Your task to perform on an android device: toggle location history Image 0: 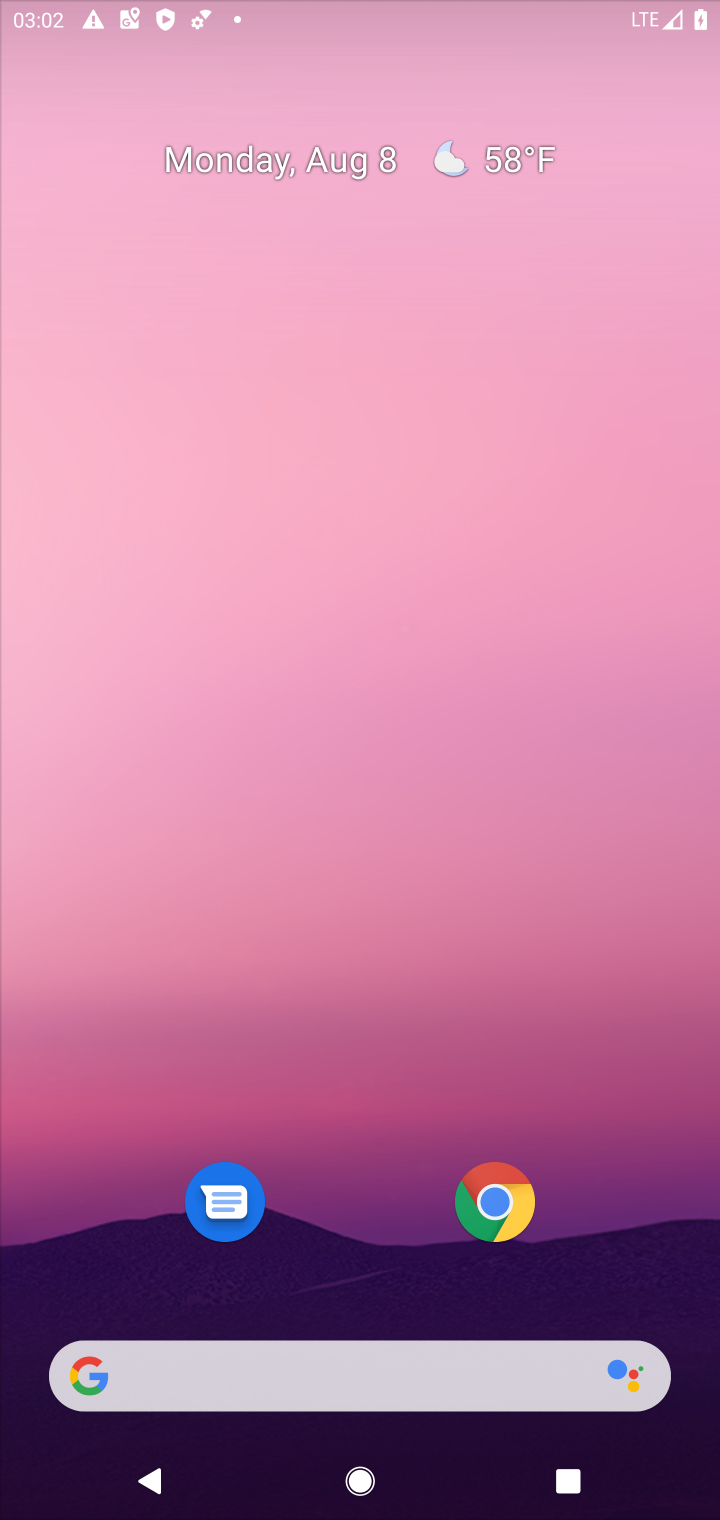
Step 0: press home button
Your task to perform on an android device: toggle location history Image 1: 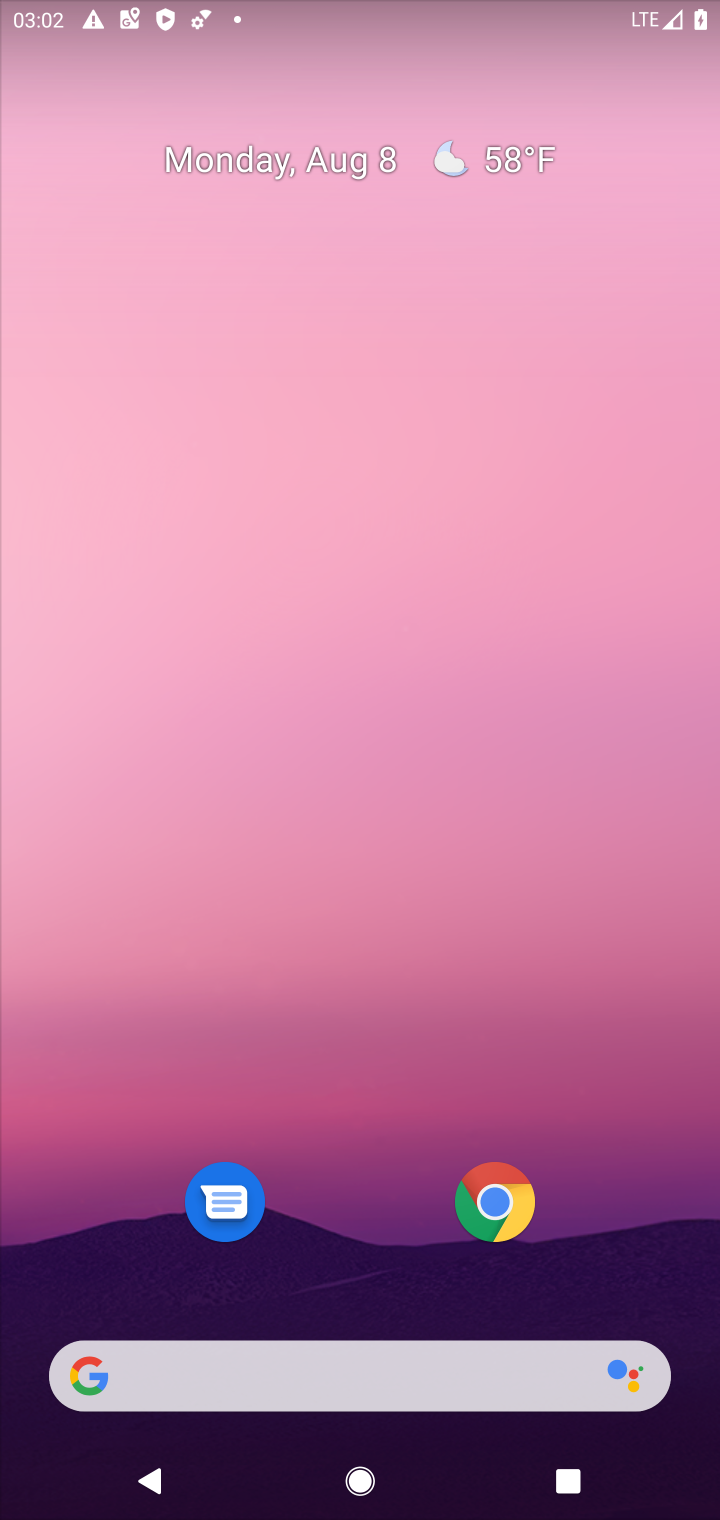
Step 1: drag from (347, 533) to (382, 79)
Your task to perform on an android device: toggle location history Image 2: 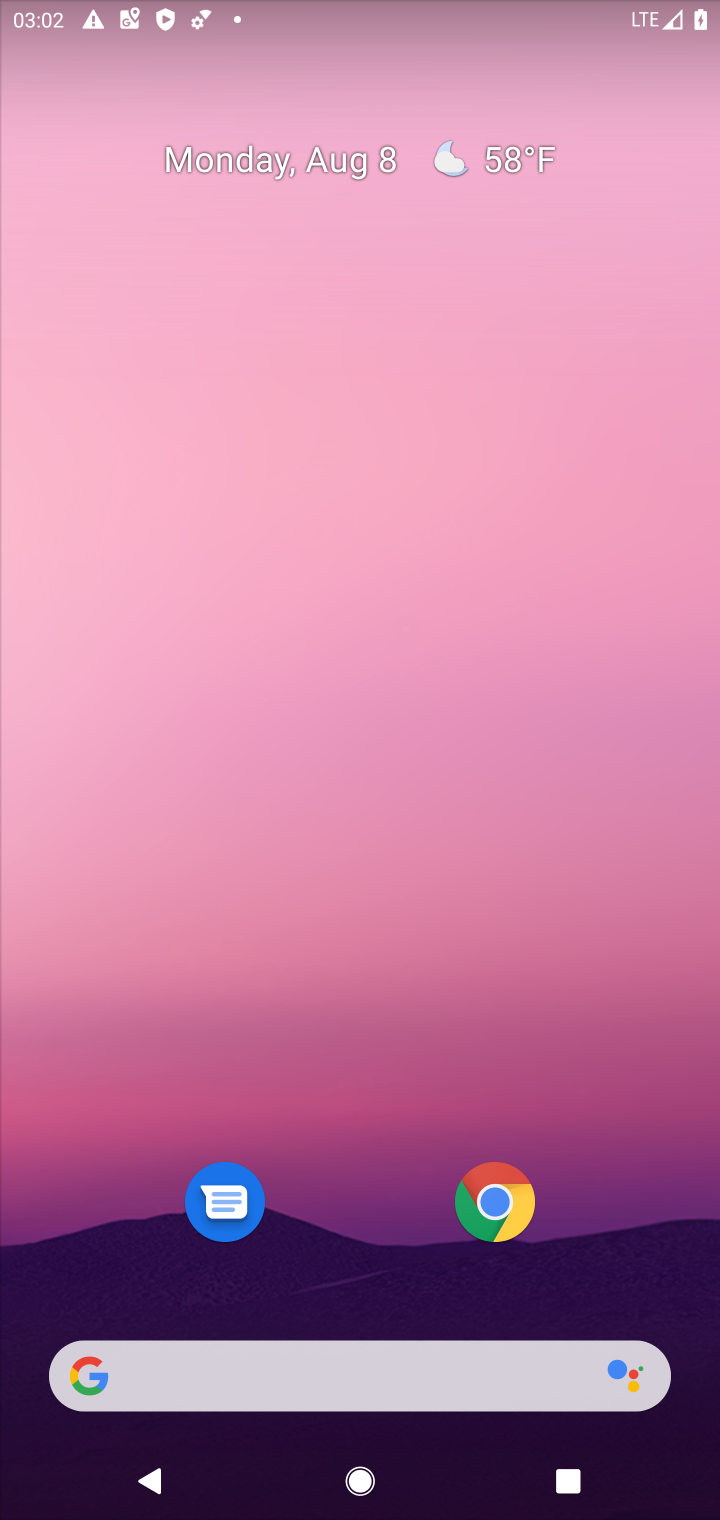
Step 2: drag from (325, 734) to (325, 188)
Your task to perform on an android device: toggle location history Image 3: 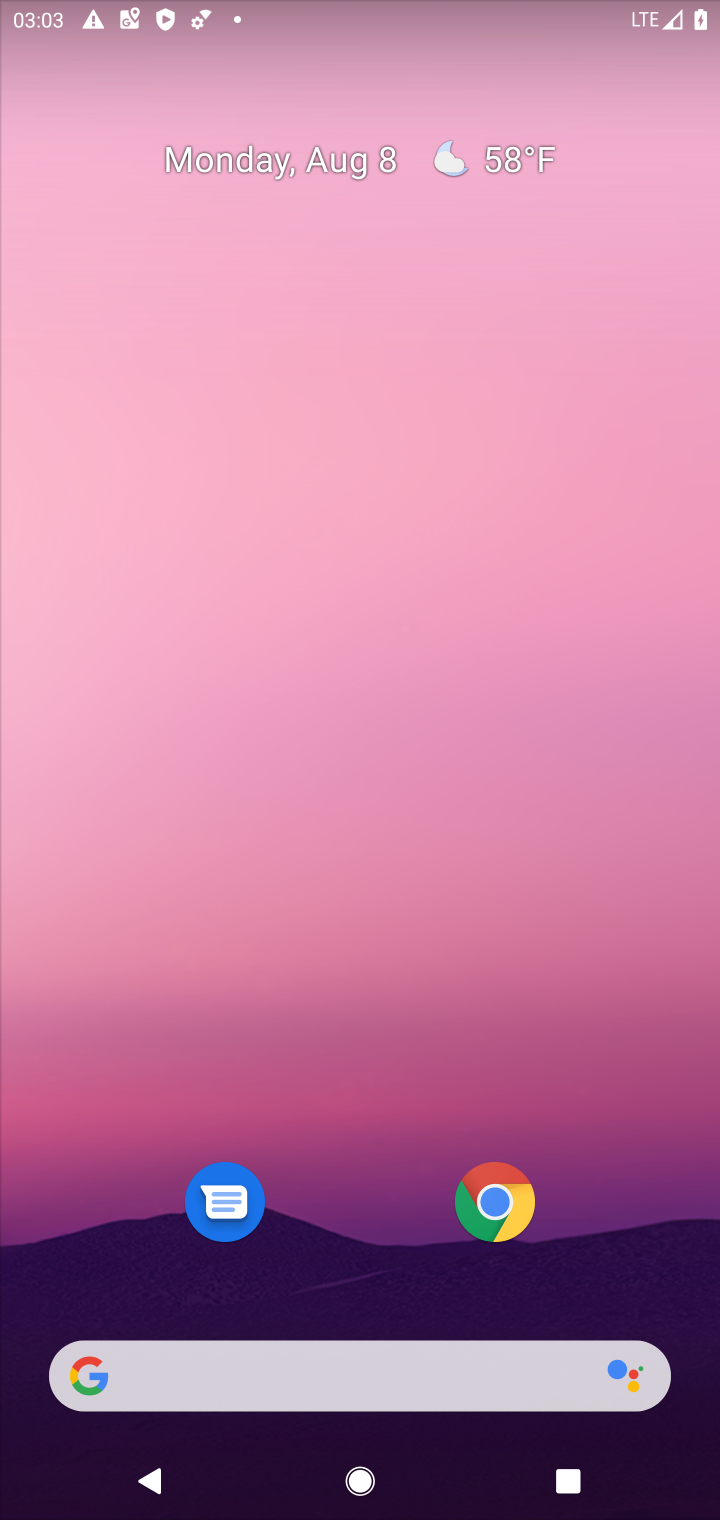
Step 3: drag from (351, 1121) to (409, 173)
Your task to perform on an android device: toggle location history Image 4: 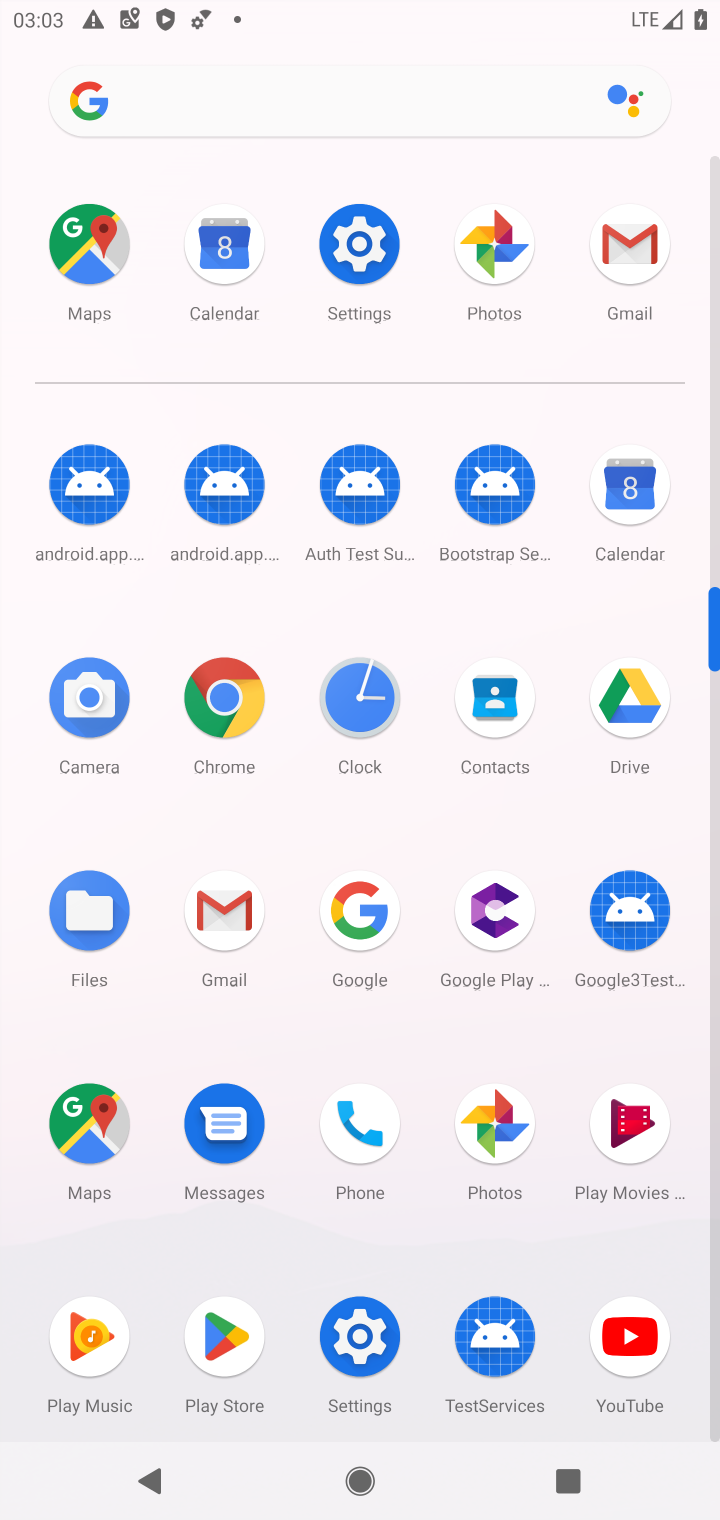
Step 4: click (341, 243)
Your task to perform on an android device: toggle location history Image 5: 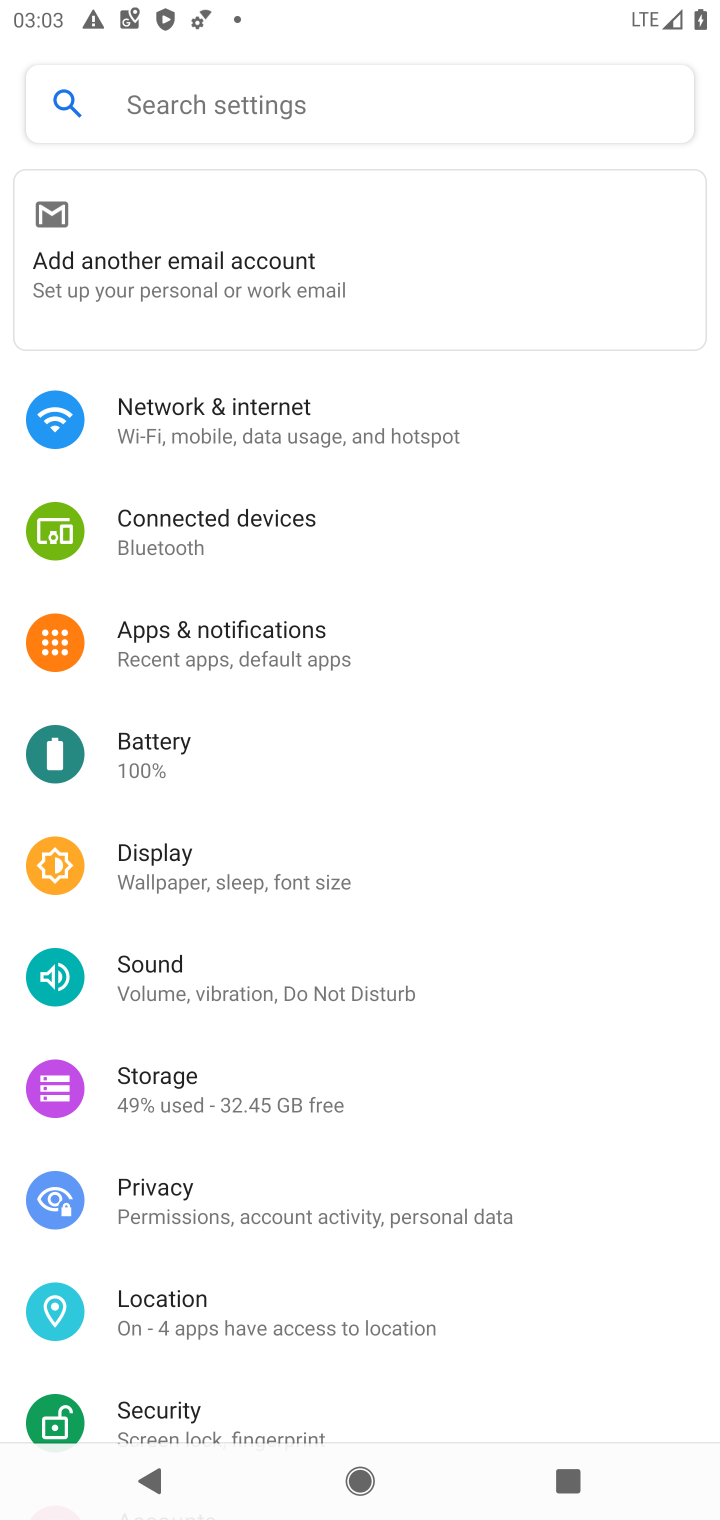
Step 5: click (174, 1337)
Your task to perform on an android device: toggle location history Image 6: 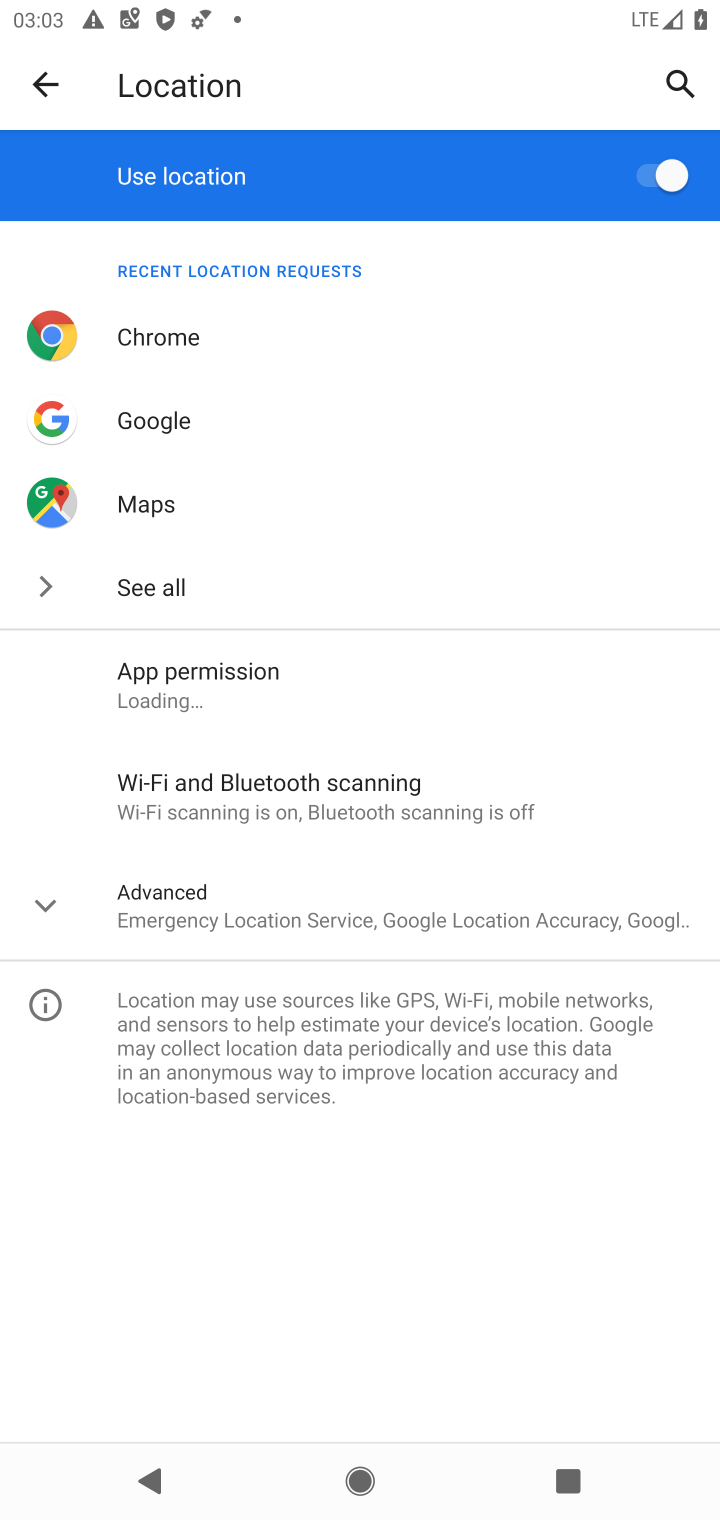
Step 6: click (191, 915)
Your task to perform on an android device: toggle location history Image 7: 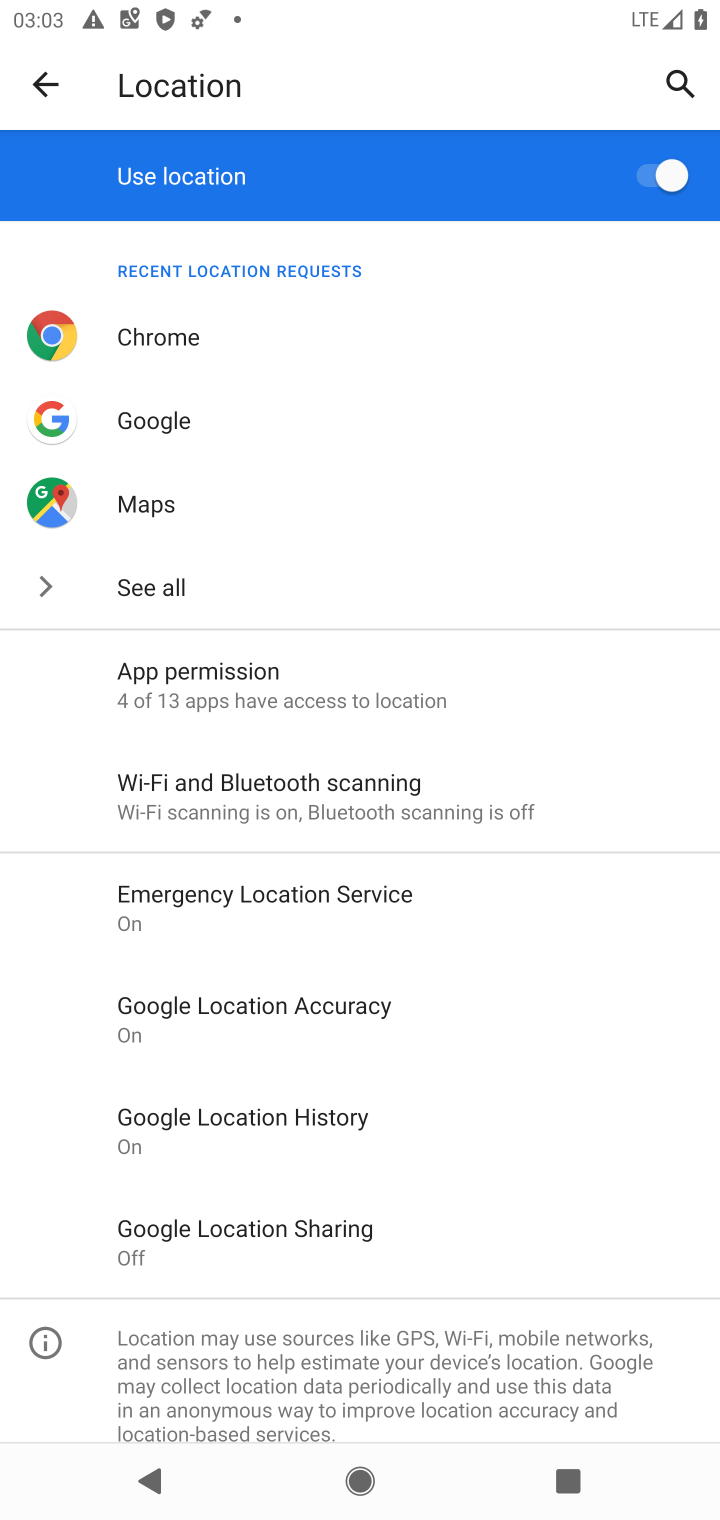
Step 7: click (227, 1116)
Your task to perform on an android device: toggle location history Image 8: 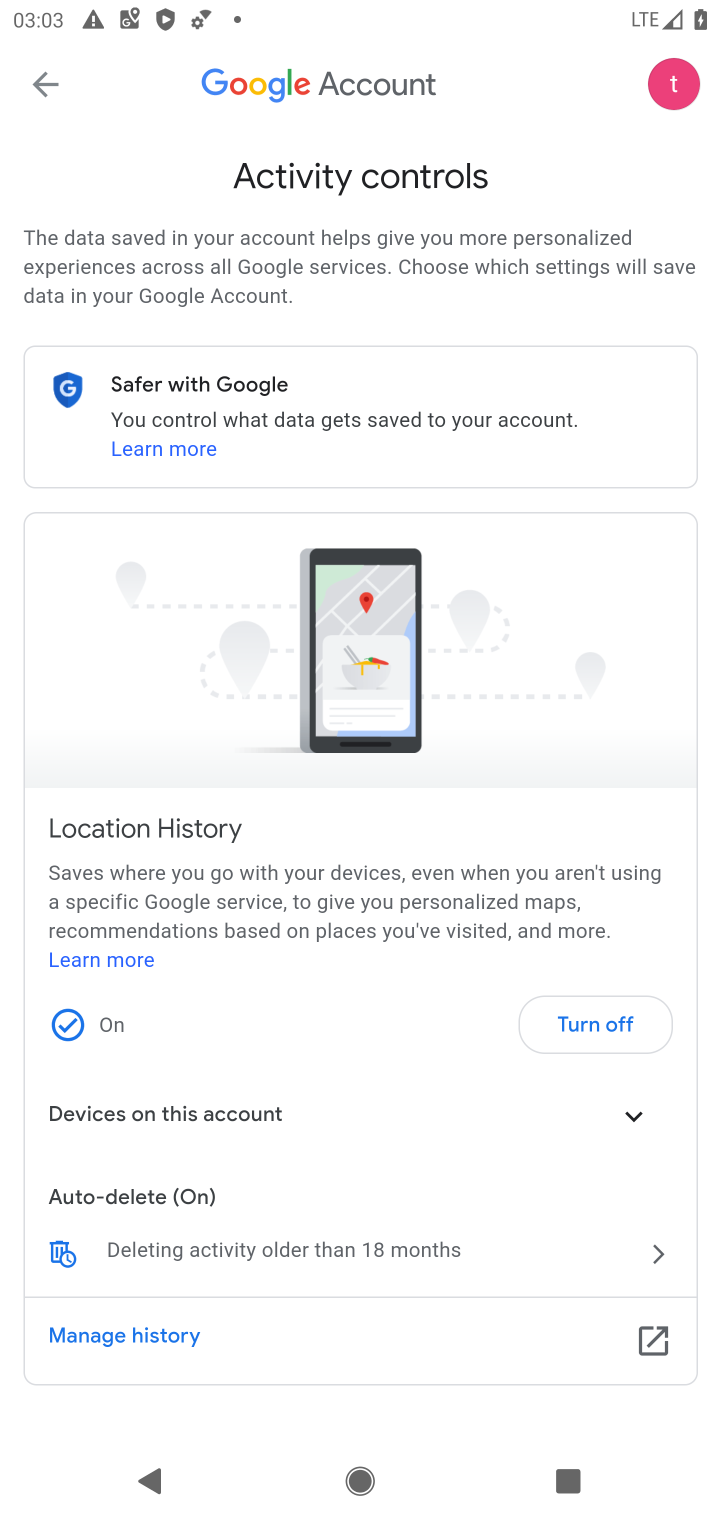
Step 8: click (611, 1002)
Your task to perform on an android device: toggle location history Image 9: 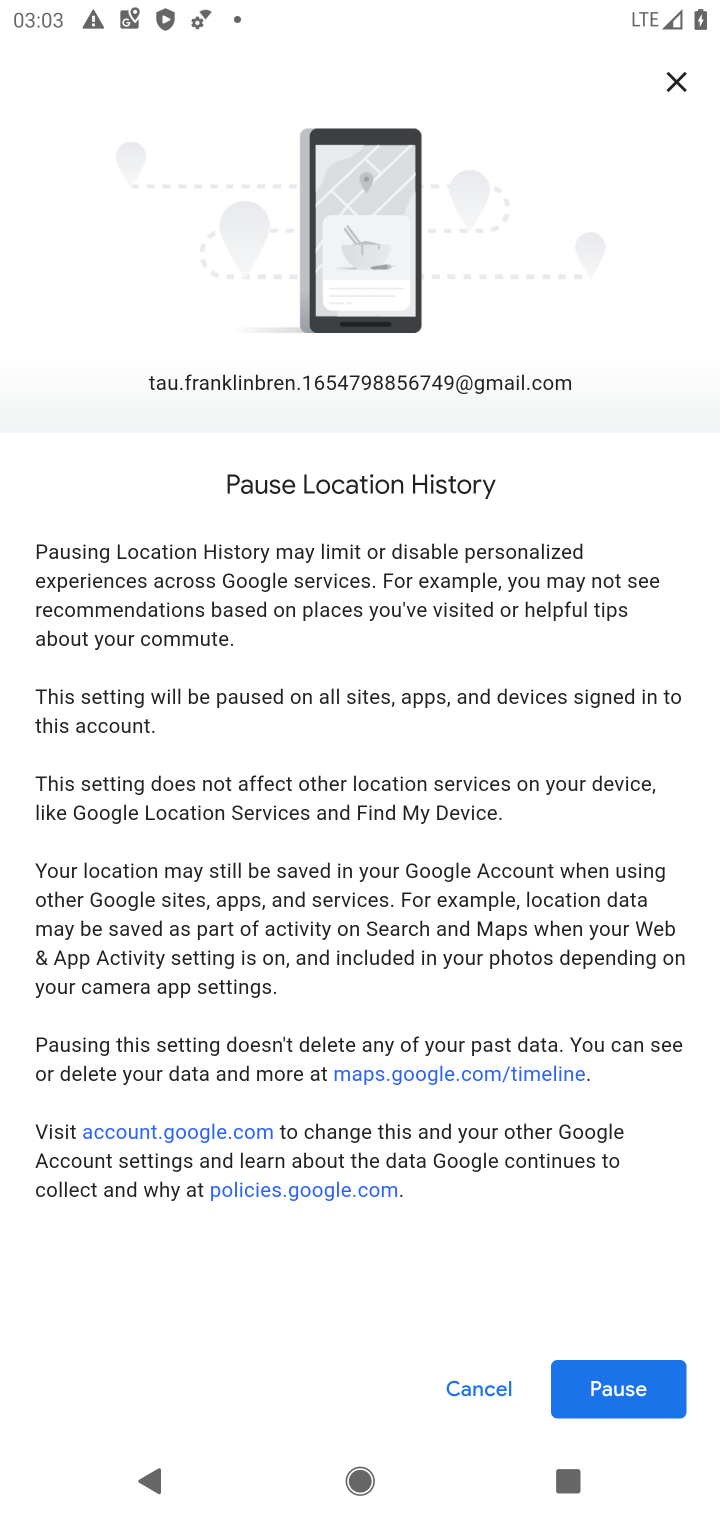
Step 9: click (627, 1403)
Your task to perform on an android device: toggle location history Image 10: 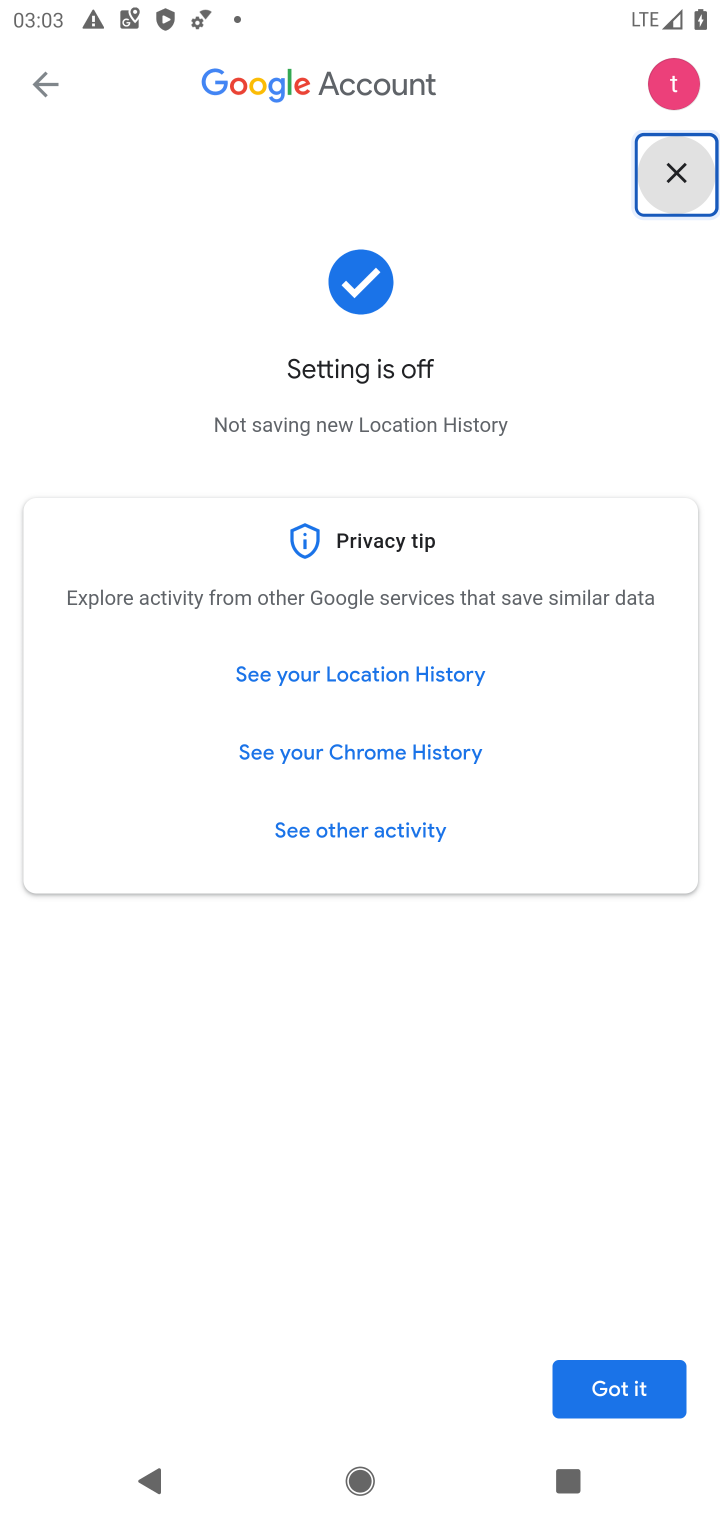
Step 10: click (627, 1403)
Your task to perform on an android device: toggle location history Image 11: 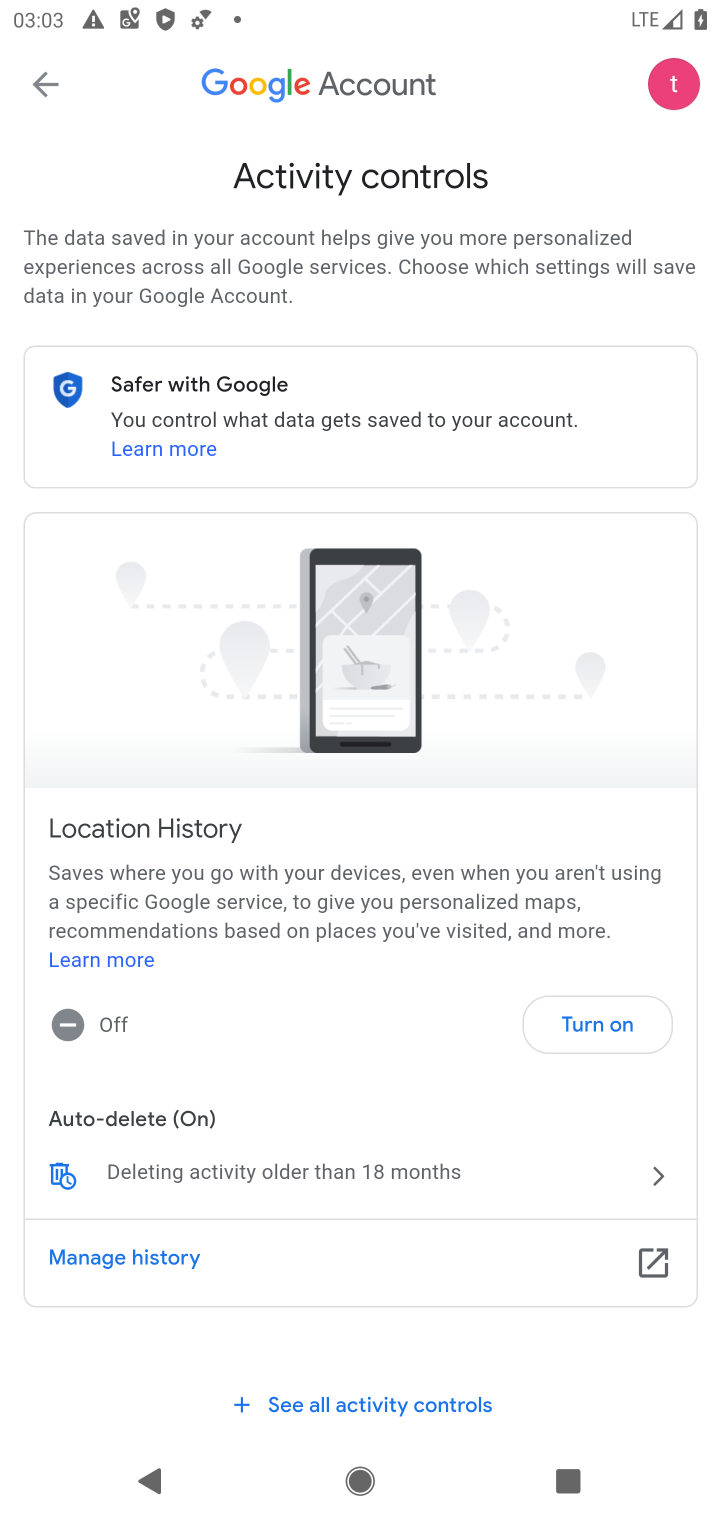
Step 11: task complete